Your task to perform on an android device: Open ESPN.com Image 0: 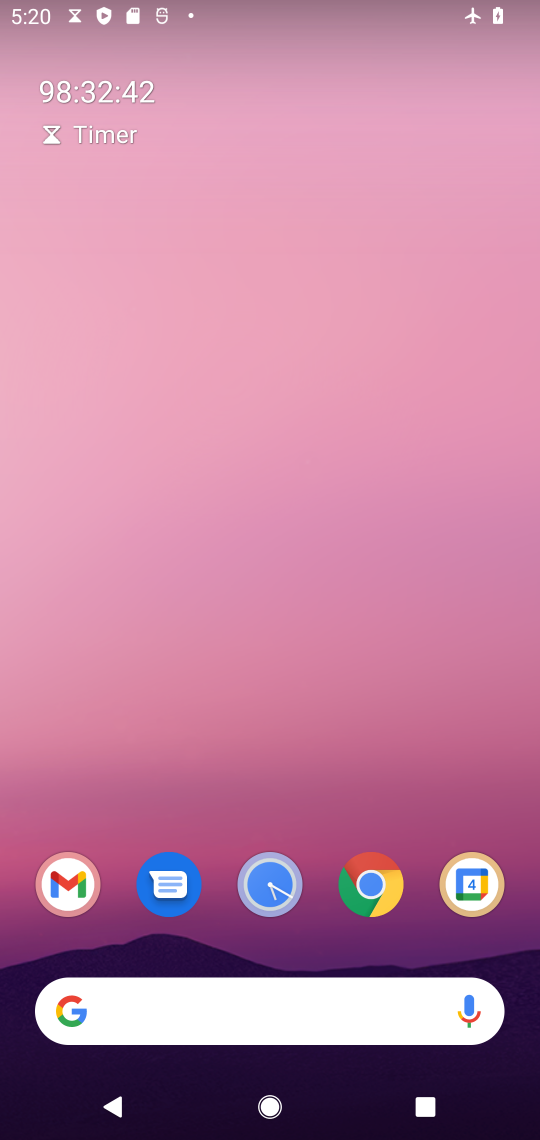
Step 0: drag from (289, 919) to (397, 193)
Your task to perform on an android device: Open ESPN.com Image 1: 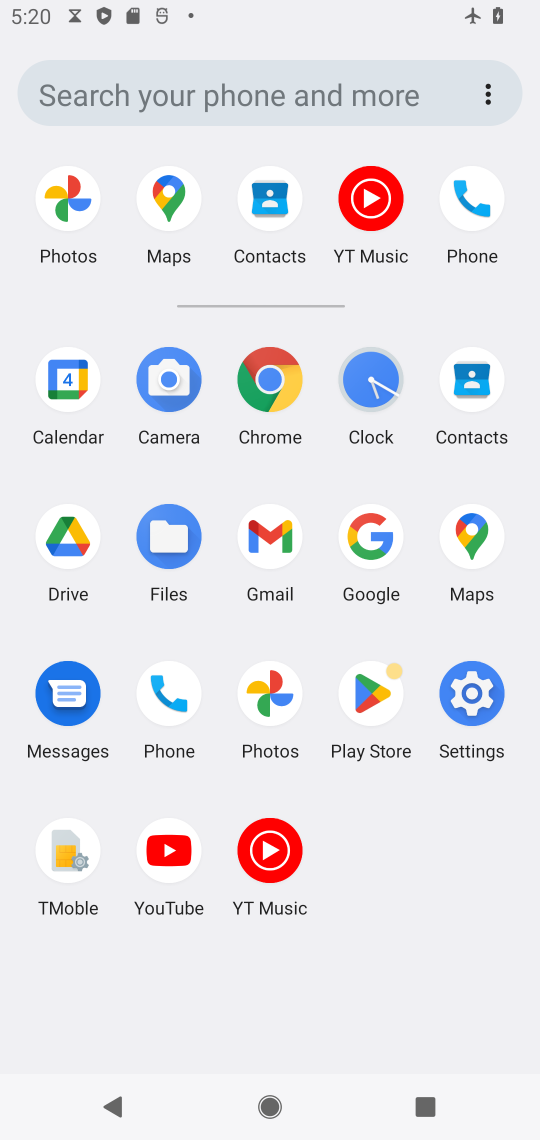
Step 1: click (255, 366)
Your task to perform on an android device: Open ESPN.com Image 2: 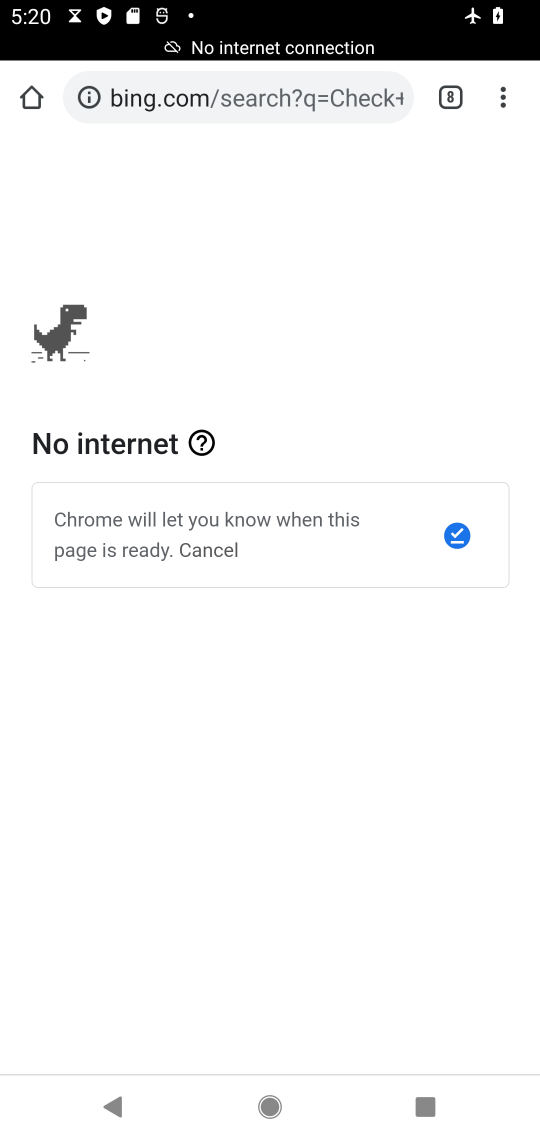
Step 2: click (522, 120)
Your task to perform on an android device: Open ESPN.com Image 3: 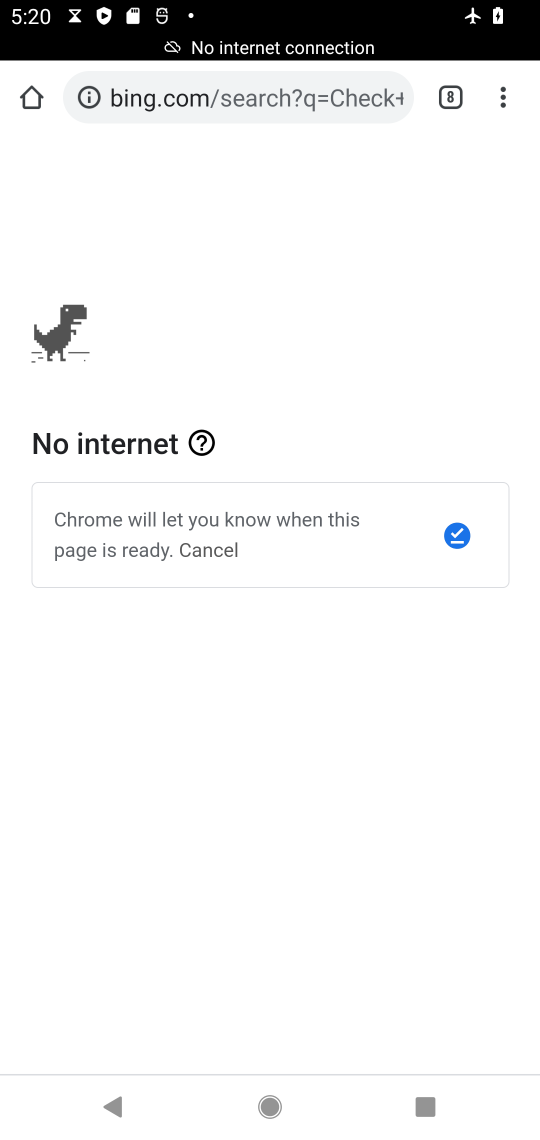
Step 3: click (513, 87)
Your task to perform on an android device: Open ESPN.com Image 4: 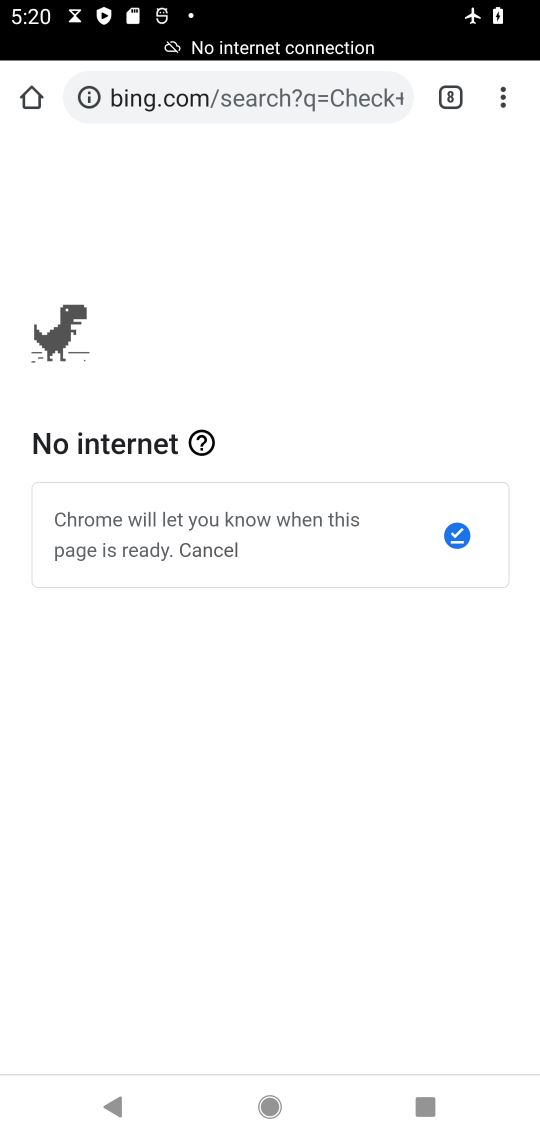
Step 4: click (503, 90)
Your task to perform on an android device: Open ESPN.com Image 5: 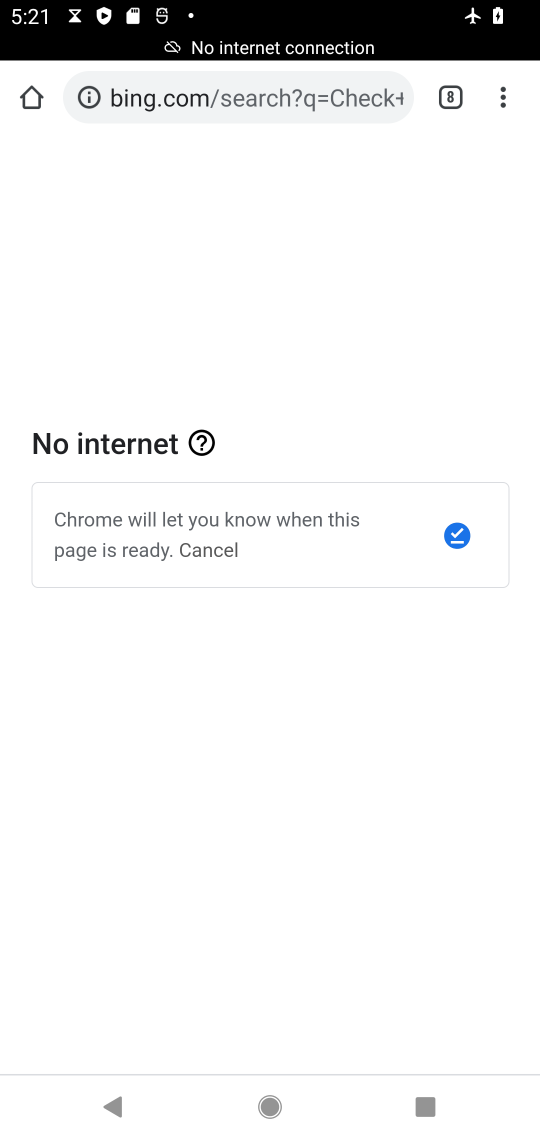
Step 5: click (495, 91)
Your task to perform on an android device: Open ESPN.com Image 6: 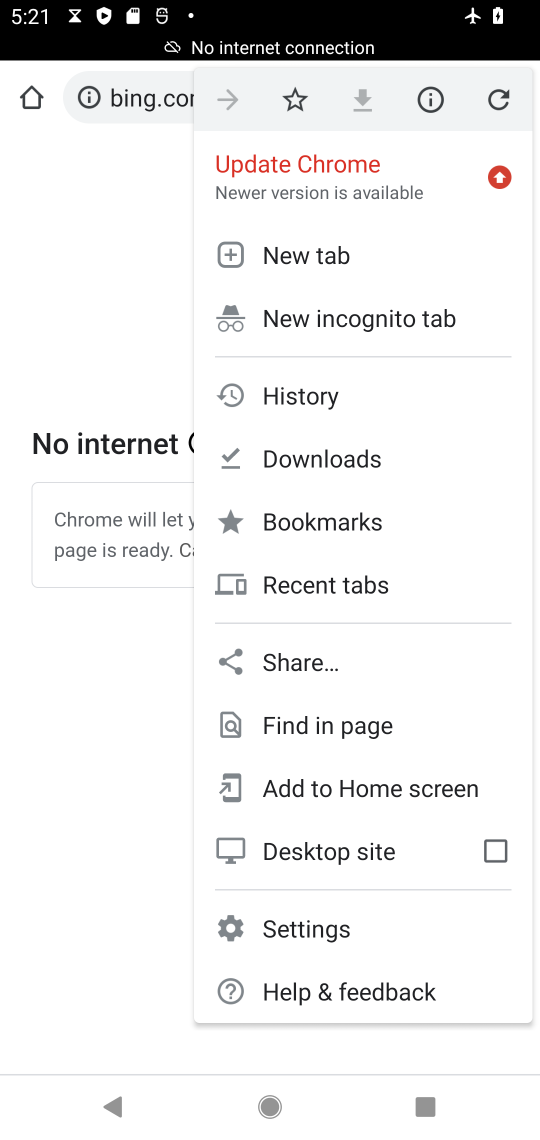
Step 6: click (305, 235)
Your task to perform on an android device: Open ESPN.com Image 7: 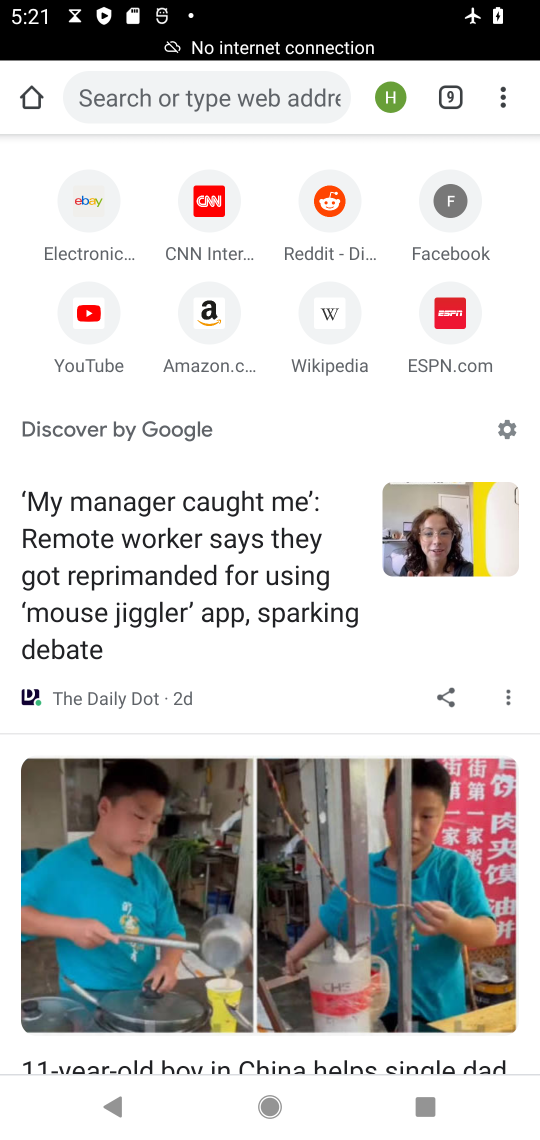
Step 7: click (444, 309)
Your task to perform on an android device: Open ESPN.com Image 8: 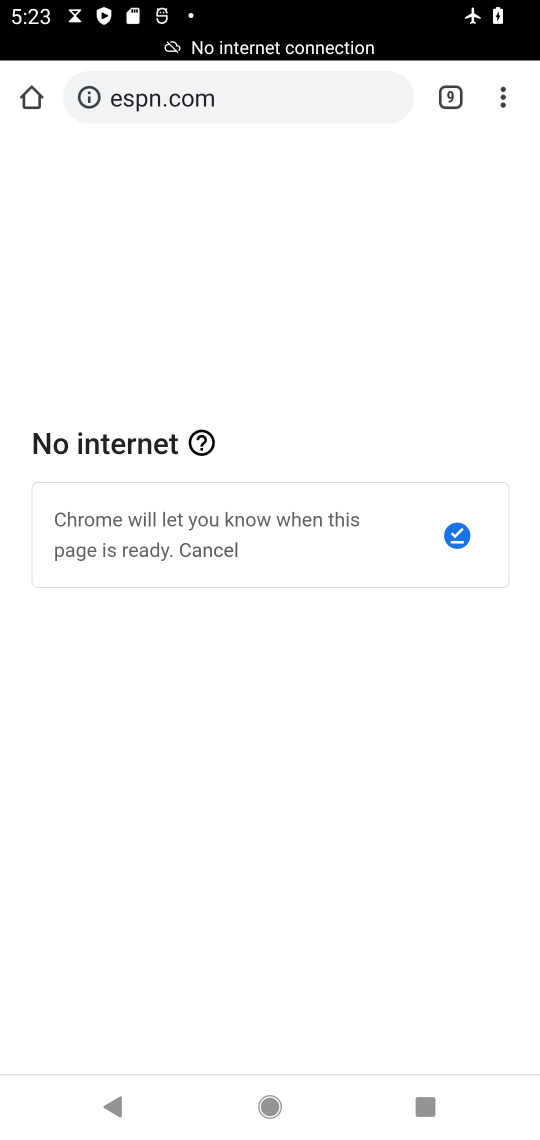
Step 8: task complete